Your task to perform on an android device: star an email in the gmail app Image 0: 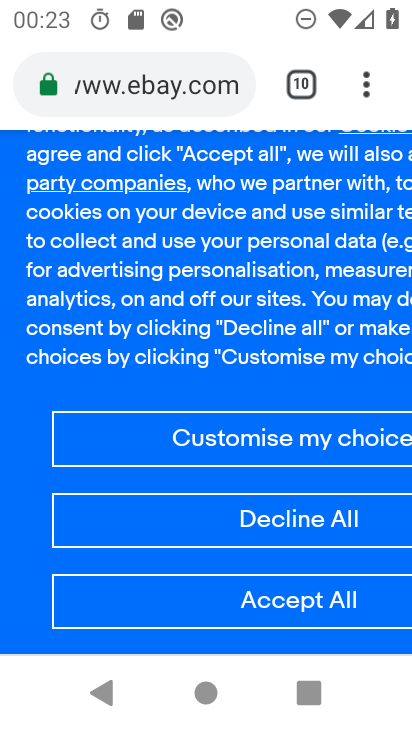
Step 0: press home button
Your task to perform on an android device: star an email in the gmail app Image 1: 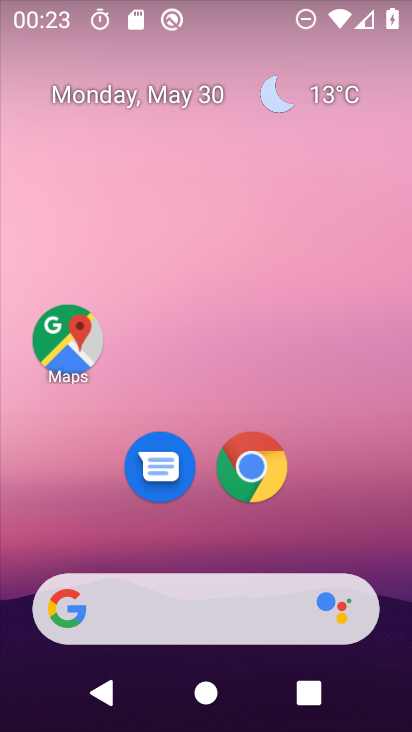
Step 1: drag from (230, 524) to (220, 158)
Your task to perform on an android device: star an email in the gmail app Image 2: 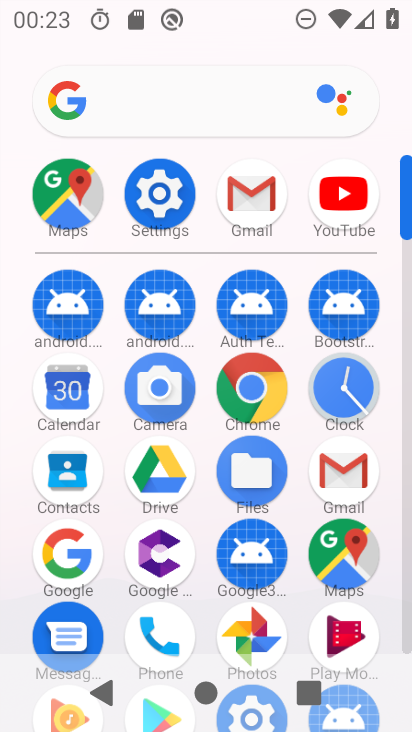
Step 2: click (236, 201)
Your task to perform on an android device: star an email in the gmail app Image 3: 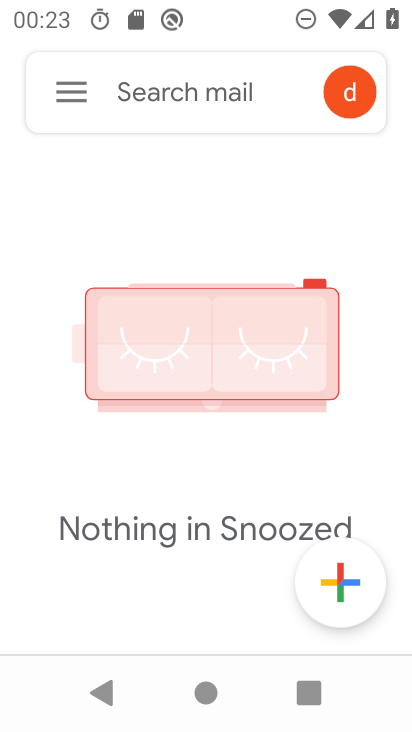
Step 3: click (72, 86)
Your task to perform on an android device: star an email in the gmail app Image 4: 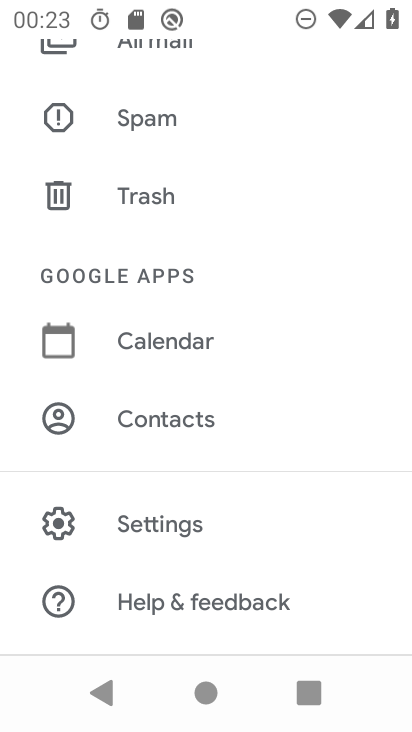
Step 4: drag from (172, 222) to (200, 506)
Your task to perform on an android device: star an email in the gmail app Image 5: 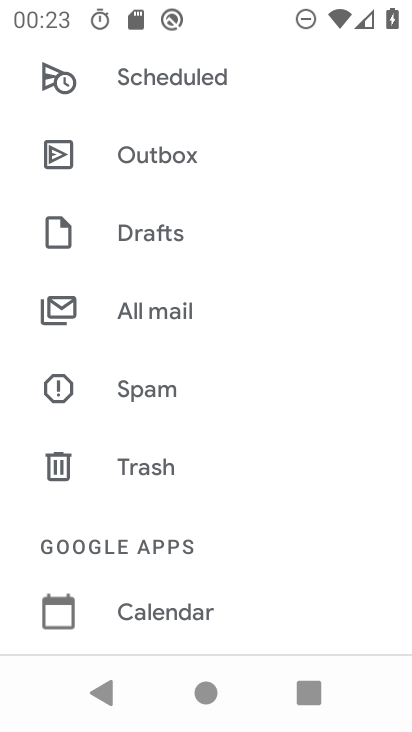
Step 5: click (191, 303)
Your task to perform on an android device: star an email in the gmail app Image 6: 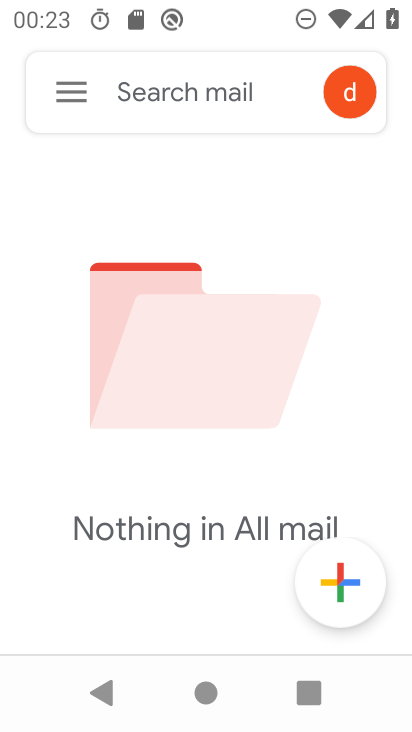
Step 6: task complete